Your task to perform on an android device: Open Yahoo.com Image 0: 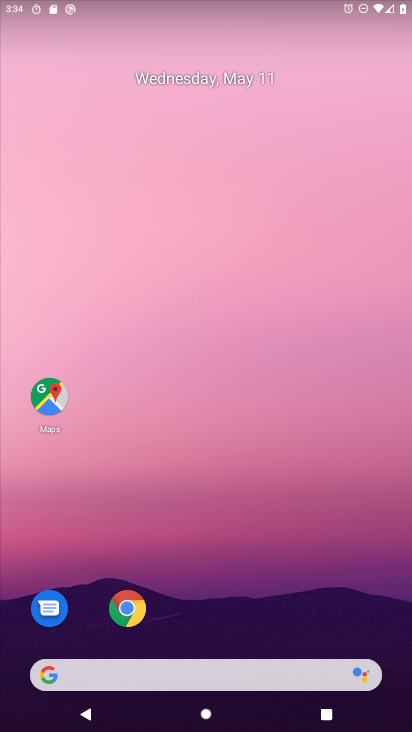
Step 0: drag from (187, 647) to (178, 157)
Your task to perform on an android device: Open Yahoo.com Image 1: 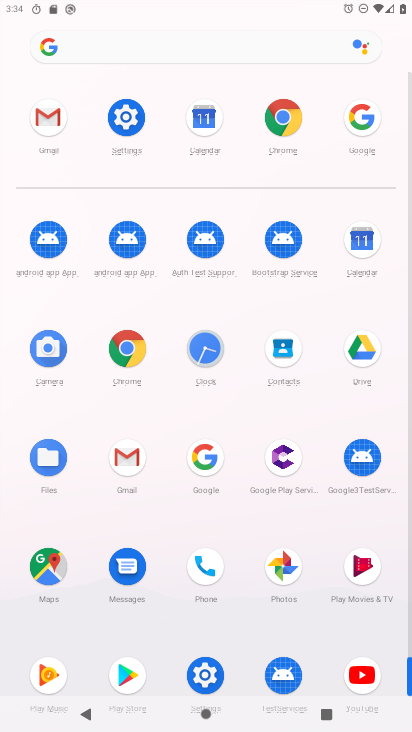
Step 1: click (272, 135)
Your task to perform on an android device: Open Yahoo.com Image 2: 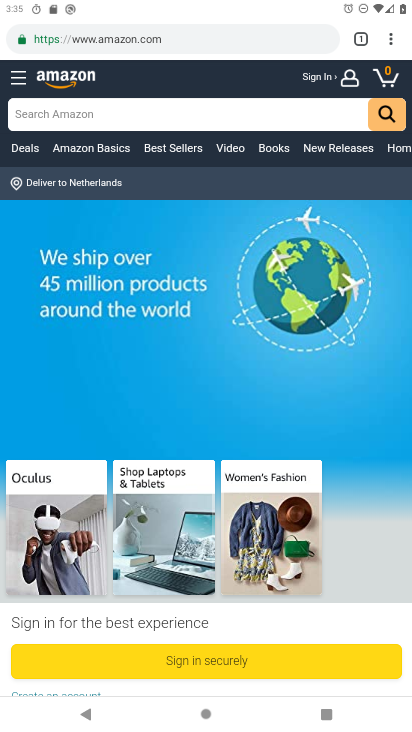
Step 2: click (148, 27)
Your task to perform on an android device: Open Yahoo.com Image 3: 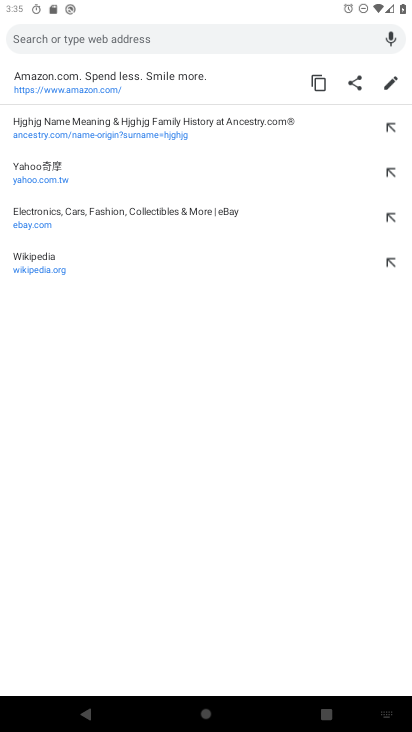
Step 3: type "yahoo.com"
Your task to perform on an android device: Open Yahoo.com Image 4: 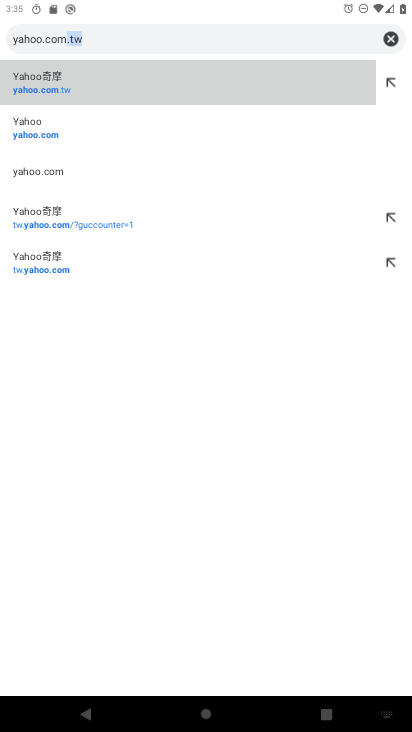
Step 4: click (113, 120)
Your task to perform on an android device: Open Yahoo.com Image 5: 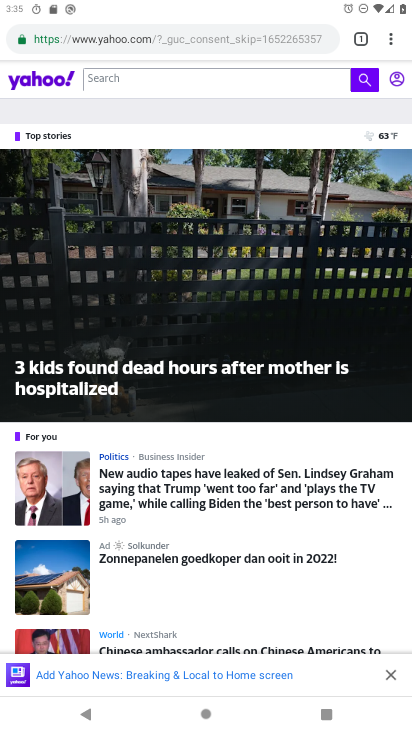
Step 5: task complete